Your task to perform on an android device: Go to Wikipedia Image 0: 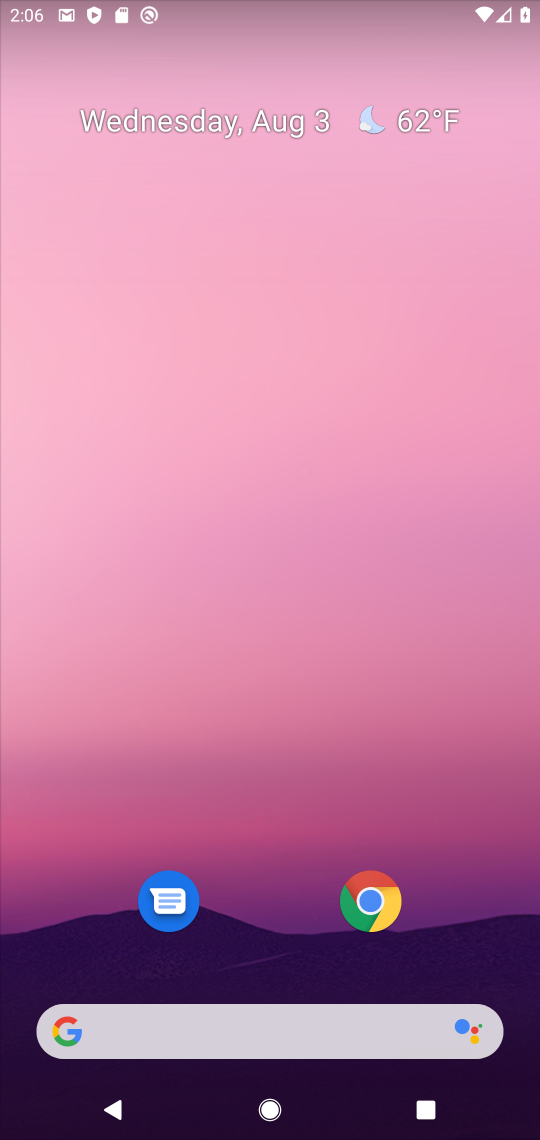
Step 0: drag from (303, 714) to (293, 519)
Your task to perform on an android device: Go to Wikipedia Image 1: 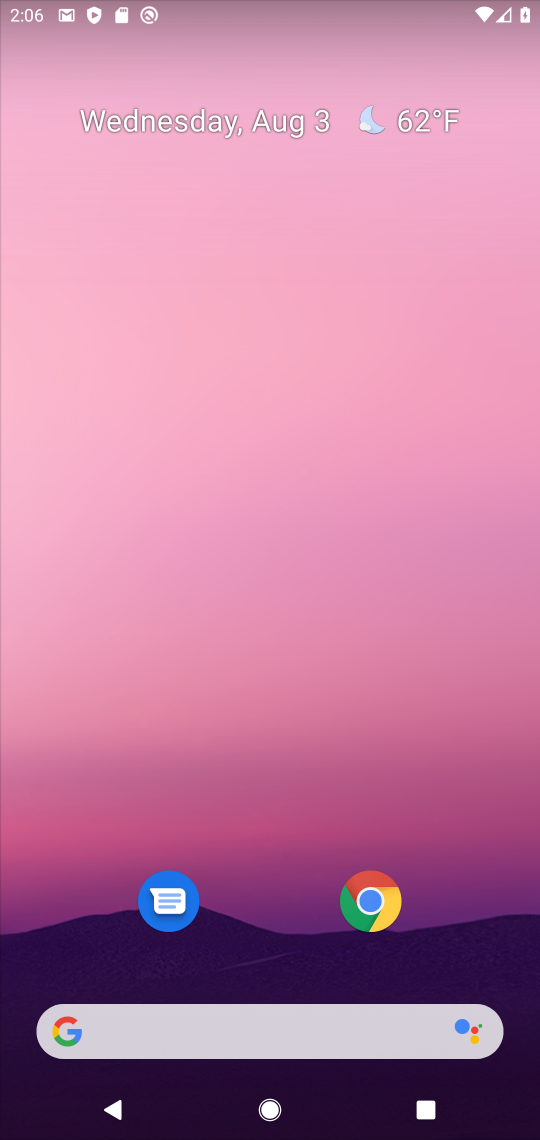
Step 1: click (380, 914)
Your task to perform on an android device: Go to Wikipedia Image 2: 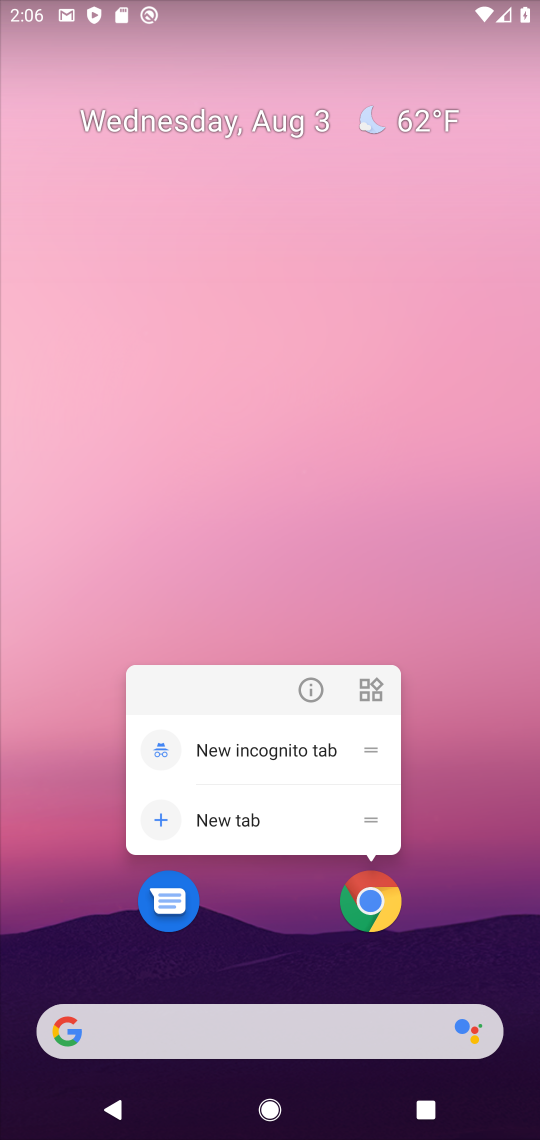
Step 2: click (264, 929)
Your task to perform on an android device: Go to Wikipedia Image 3: 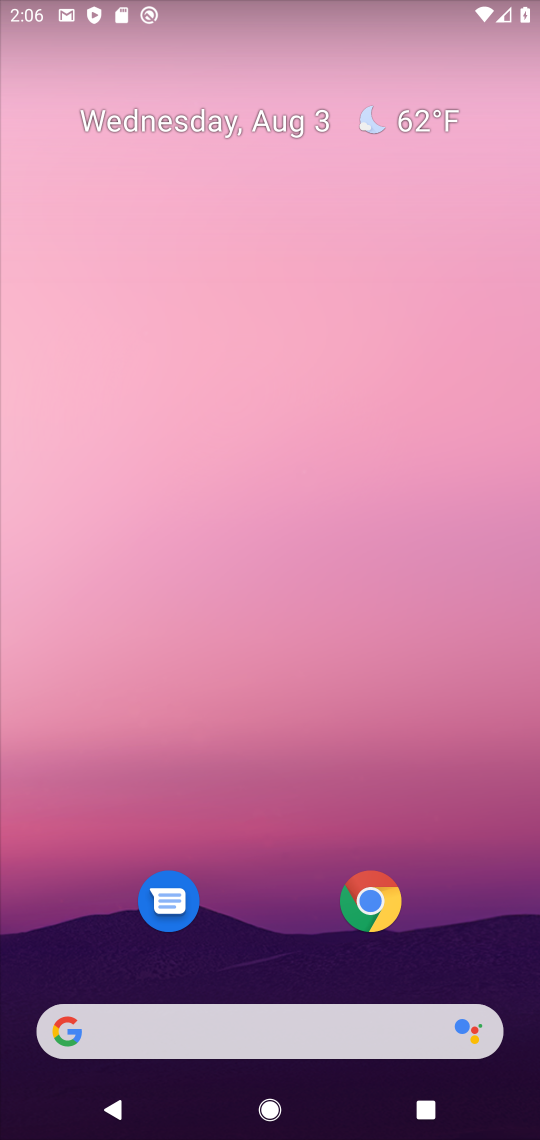
Step 3: drag from (222, 1004) to (239, 476)
Your task to perform on an android device: Go to Wikipedia Image 4: 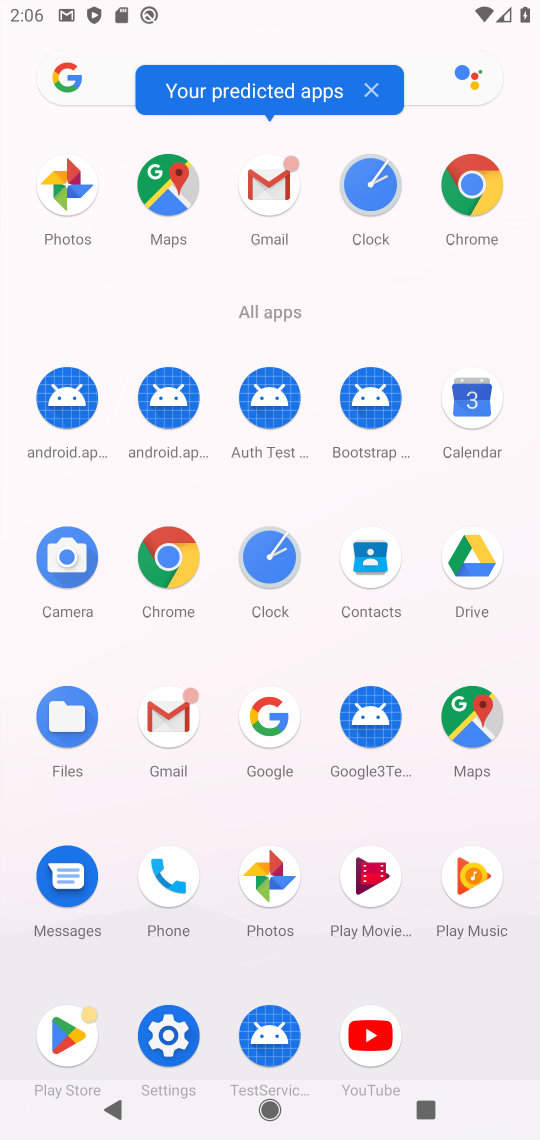
Step 4: click (160, 556)
Your task to perform on an android device: Go to Wikipedia Image 5: 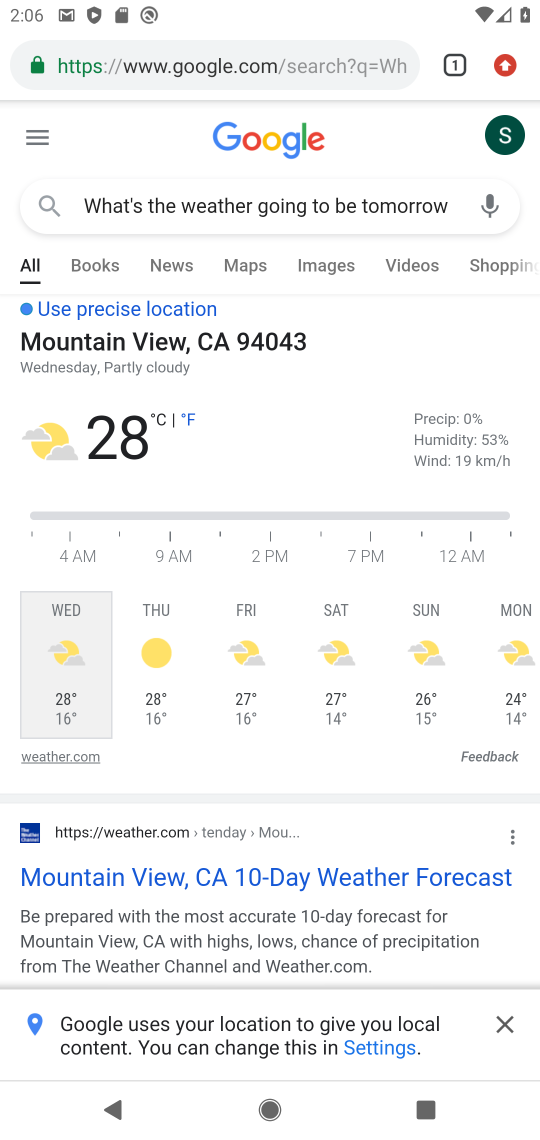
Step 5: click (525, 68)
Your task to perform on an android device: Go to Wikipedia Image 6: 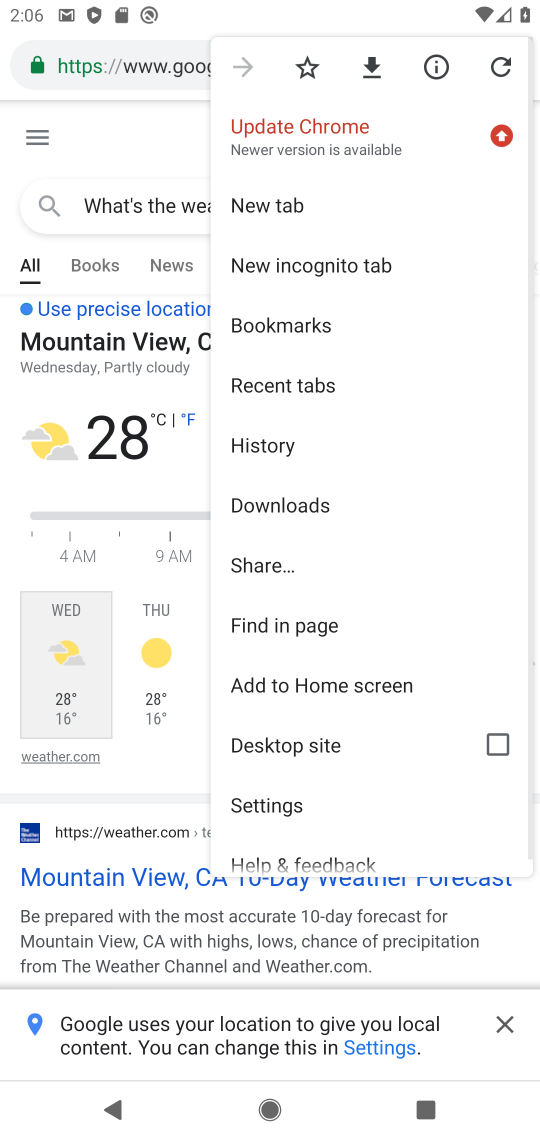
Step 6: click (273, 231)
Your task to perform on an android device: Go to Wikipedia Image 7: 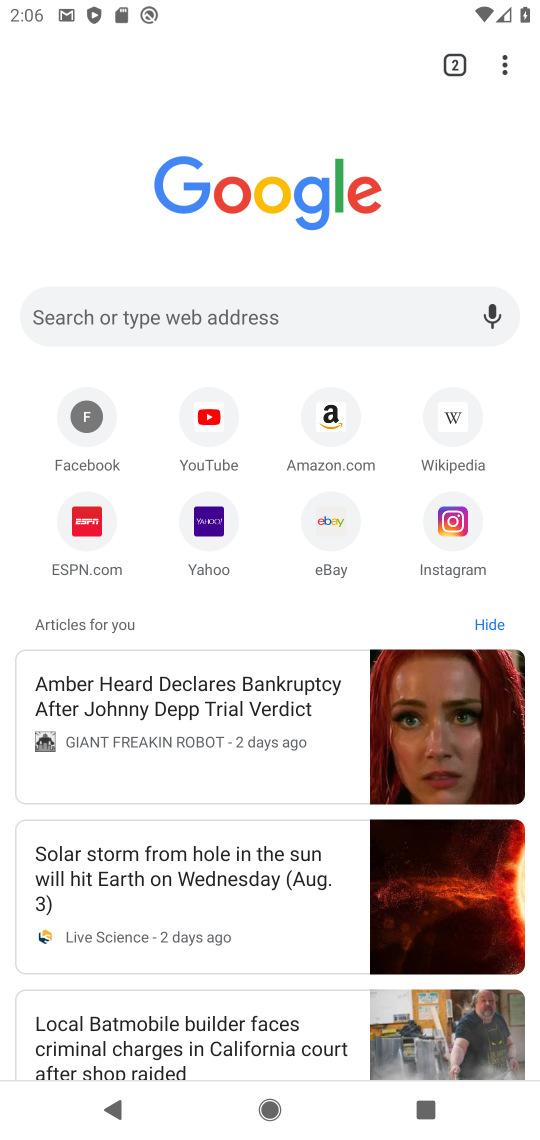
Step 7: click (461, 423)
Your task to perform on an android device: Go to Wikipedia Image 8: 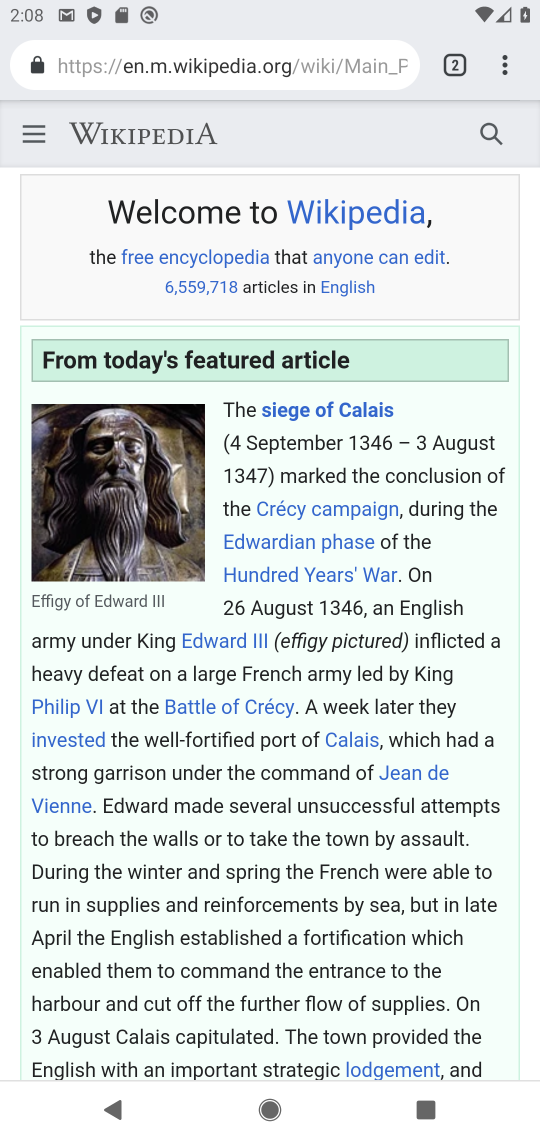
Step 8: task complete